Your task to perform on an android device: When is my next meeting? Image 0: 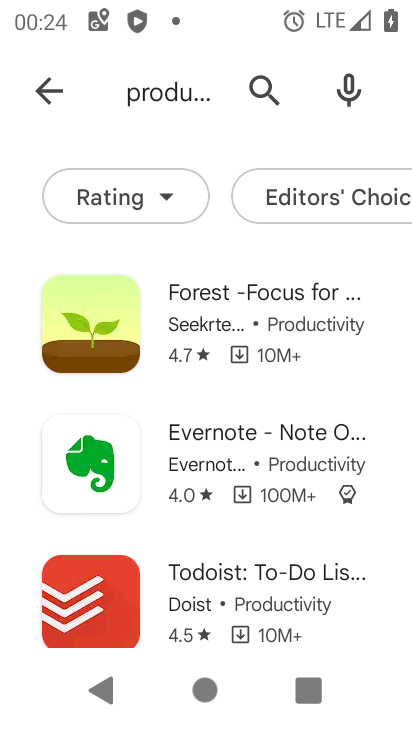
Step 0: press home button
Your task to perform on an android device: When is my next meeting? Image 1: 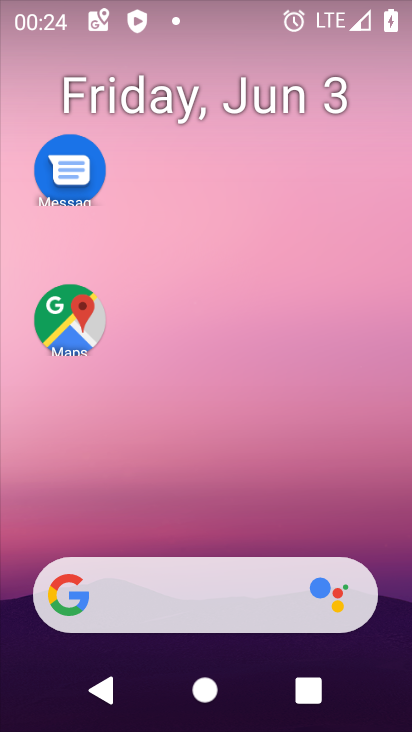
Step 1: drag from (242, 523) to (210, 230)
Your task to perform on an android device: When is my next meeting? Image 2: 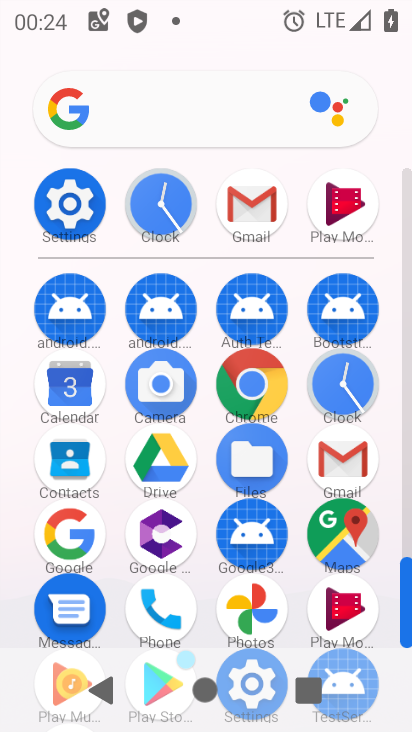
Step 2: click (69, 396)
Your task to perform on an android device: When is my next meeting? Image 3: 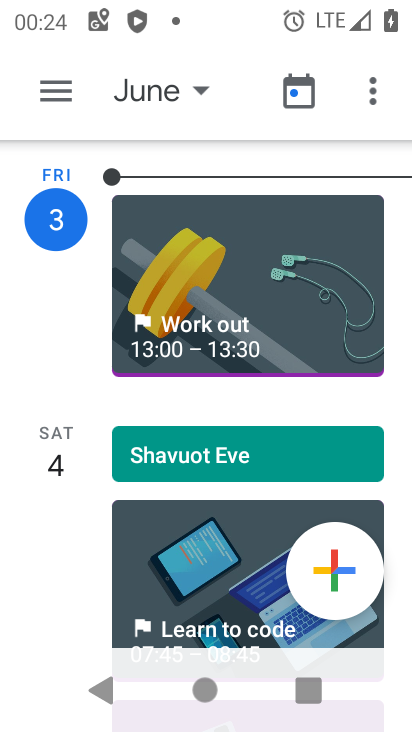
Step 3: click (197, 89)
Your task to perform on an android device: When is my next meeting? Image 4: 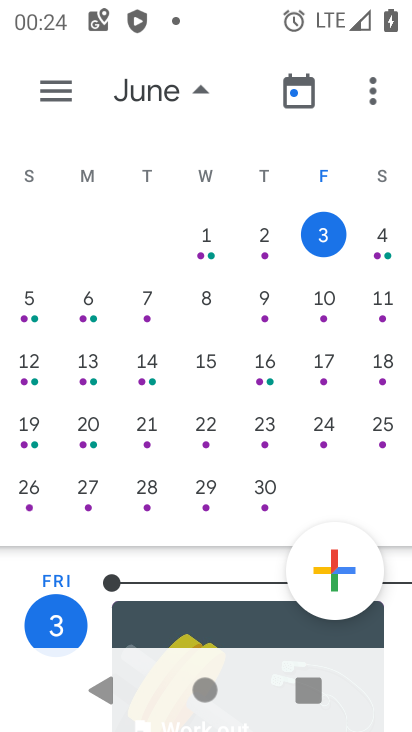
Step 4: click (197, 89)
Your task to perform on an android device: When is my next meeting? Image 5: 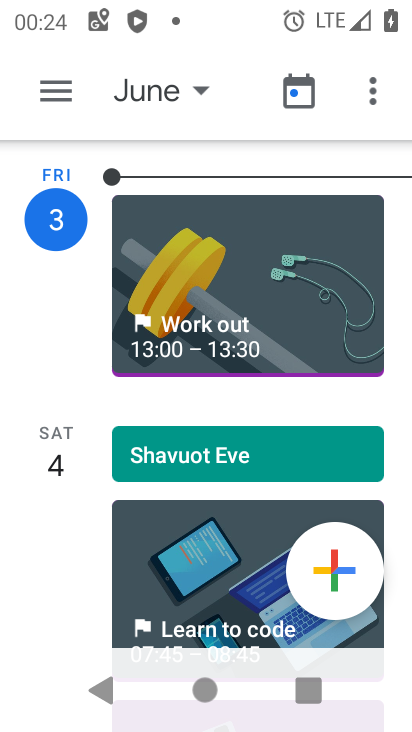
Step 5: task complete